Your task to perform on an android device: open app "Duolingo: language lessons" (install if not already installed) and enter user name: "omens@gmail.com" and password: "casks" Image 0: 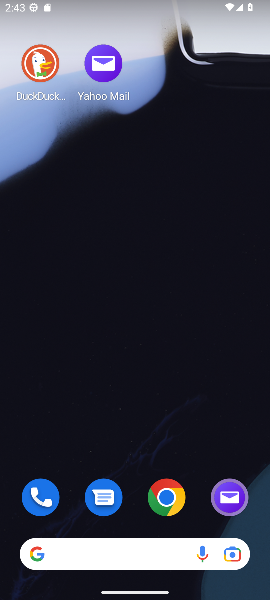
Step 0: drag from (139, 549) to (151, 127)
Your task to perform on an android device: open app "Duolingo: language lessons" (install if not already installed) and enter user name: "omens@gmail.com" and password: "casks" Image 1: 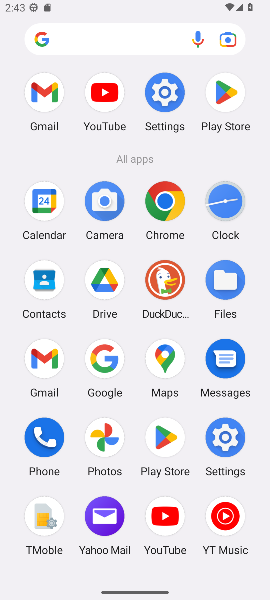
Step 1: click (223, 97)
Your task to perform on an android device: open app "Duolingo: language lessons" (install if not already installed) and enter user name: "omens@gmail.com" and password: "casks" Image 2: 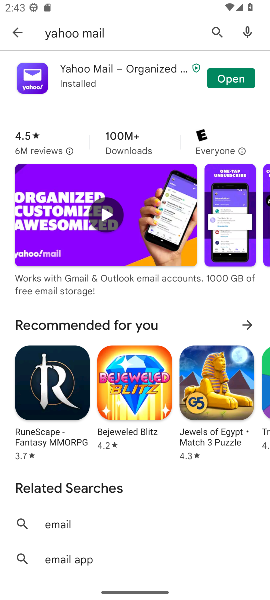
Step 2: press back button
Your task to perform on an android device: open app "Duolingo: language lessons" (install if not already installed) and enter user name: "omens@gmail.com" and password: "casks" Image 3: 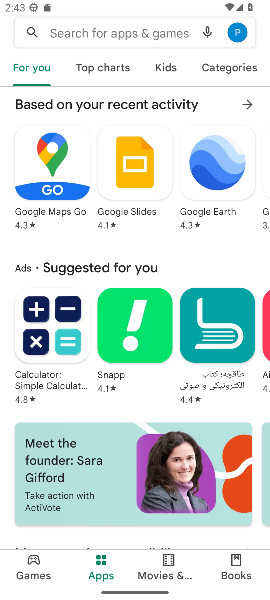
Step 3: click (141, 37)
Your task to perform on an android device: open app "Duolingo: language lessons" (install if not already installed) and enter user name: "omens@gmail.com" and password: "casks" Image 4: 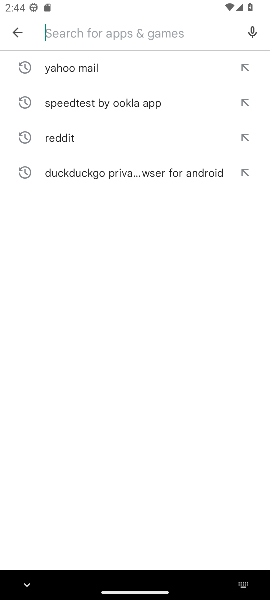
Step 4: type "Duolingo: language lessons"
Your task to perform on an android device: open app "Duolingo: language lessons" (install if not already installed) and enter user name: "omens@gmail.com" and password: "casks" Image 5: 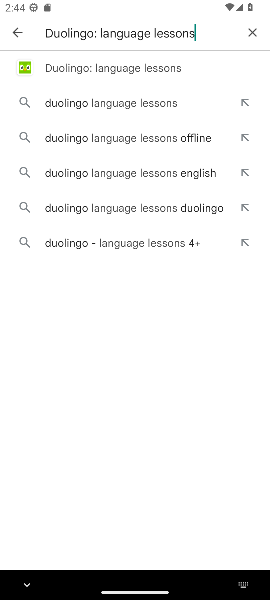
Step 5: click (109, 69)
Your task to perform on an android device: open app "Duolingo: language lessons" (install if not already installed) and enter user name: "omens@gmail.com" and password: "casks" Image 6: 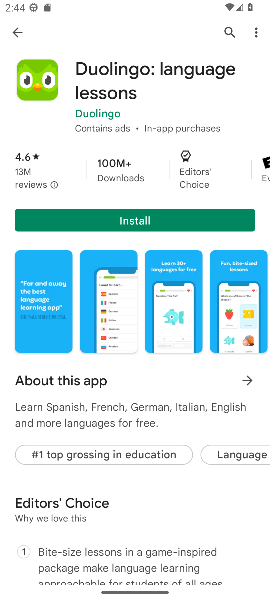
Step 6: click (138, 220)
Your task to perform on an android device: open app "Duolingo: language lessons" (install if not already installed) and enter user name: "omens@gmail.com" and password: "casks" Image 7: 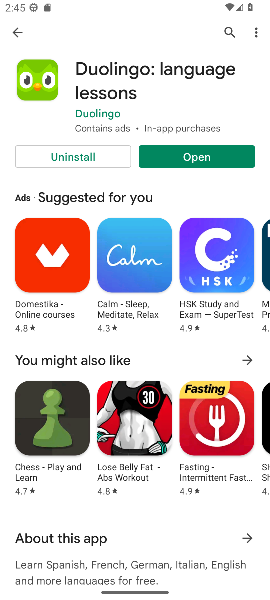
Step 7: click (209, 160)
Your task to perform on an android device: open app "Duolingo: language lessons" (install if not already installed) and enter user name: "omens@gmail.com" and password: "casks" Image 8: 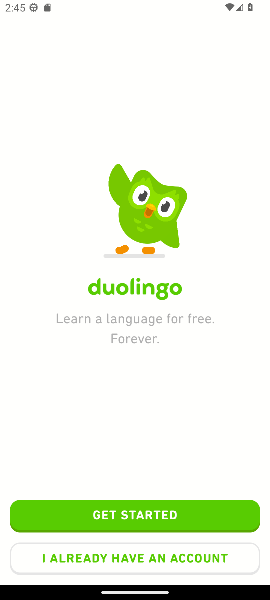
Step 8: click (140, 558)
Your task to perform on an android device: open app "Duolingo: language lessons" (install if not already installed) and enter user name: "omens@gmail.com" and password: "casks" Image 9: 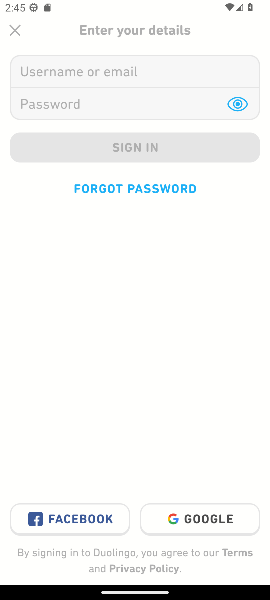
Step 9: click (170, 69)
Your task to perform on an android device: open app "Duolingo: language lessons" (install if not already installed) and enter user name: "omens@gmail.com" and password: "casks" Image 10: 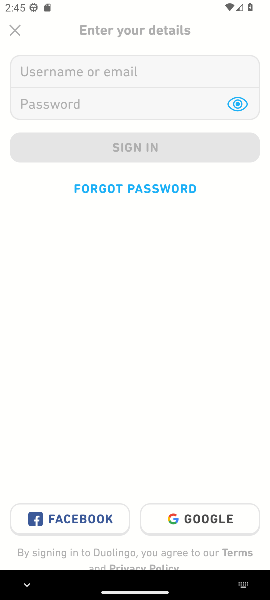
Step 10: type "omens@gmail.com"
Your task to perform on an android device: open app "Duolingo: language lessons" (install if not already installed) and enter user name: "omens@gmail.com" and password: "casks" Image 11: 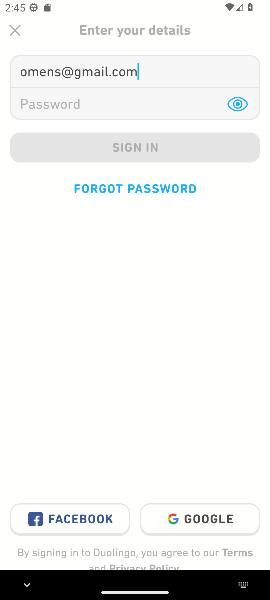
Step 11: click (75, 101)
Your task to perform on an android device: open app "Duolingo: language lessons" (install if not already installed) and enter user name: "omens@gmail.com" and password: "casks" Image 12: 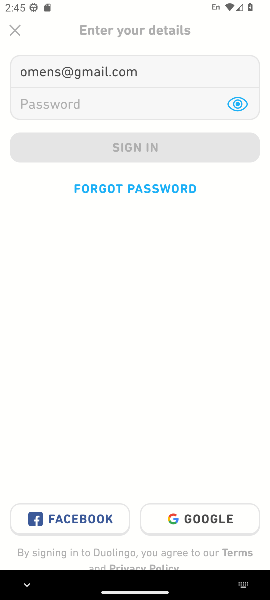
Step 12: type "casks"
Your task to perform on an android device: open app "Duolingo: language lessons" (install if not already installed) and enter user name: "omens@gmail.com" and password: "casks" Image 13: 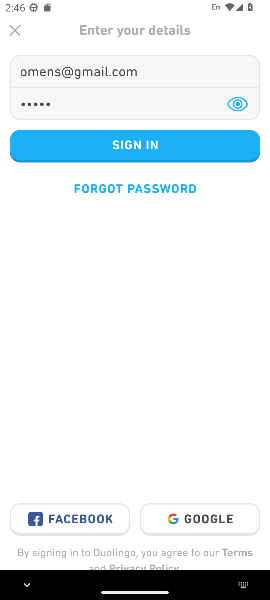
Step 13: task complete